Your task to perform on an android device: all mails in gmail Image 0: 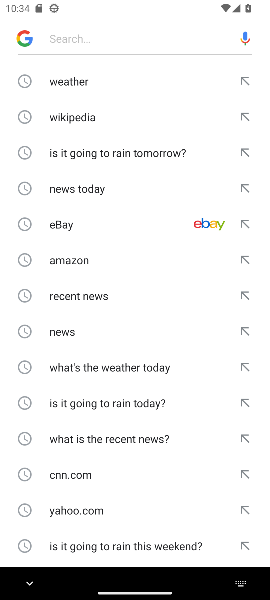
Step 0: press home button
Your task to perform on an android device: all mails in gmail Image 1: 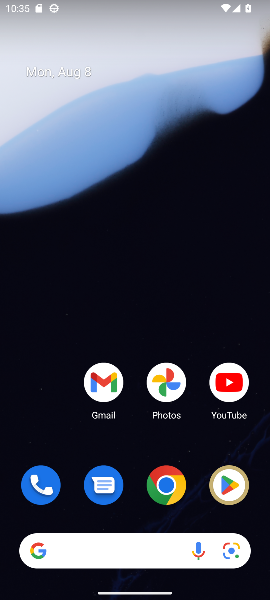
Step 1: click (98, 376)
Your task to perform on an android device: all mails in gmail Image 2: 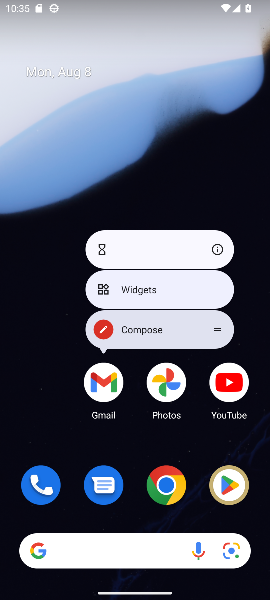
Step 2: click (100, 382)
Your task to perform on an android device: all mails in gmail Image 3: 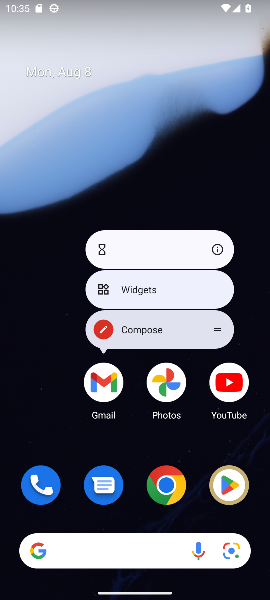
Step 3: click (100, 382)
Your task to perform on an android device: all mails in gmail Image 4: 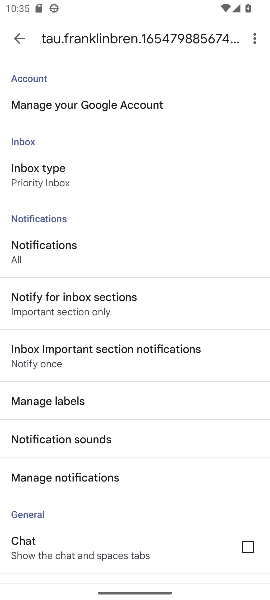
Step 4: click (16, 29)
Your task to perform on an android device: all mails in gmail Image 5: 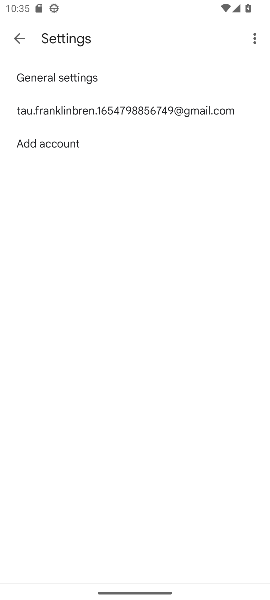
Step 5: click (16, 29)
Your task to perform on an android device: all mails in gmail Image 6: 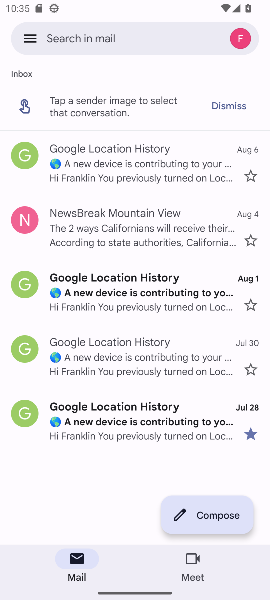
Step 6: click (37, 37)
Your task to perform on an android device: all mails in gmail Image 7: 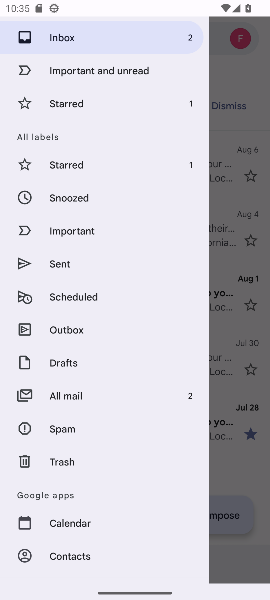
Step 7: click (66, 394)
Your task to perform on an android device: all mails in gmail Image 8: 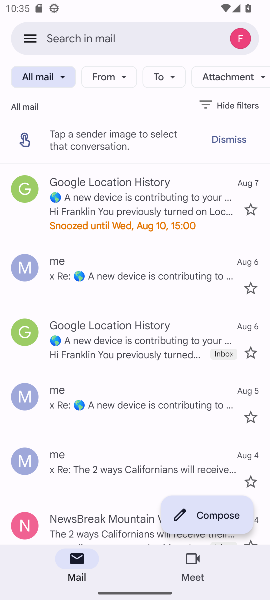
Step 8: task complete